Your task to perform on an android device: toggle translation in the chrome app Image 0: 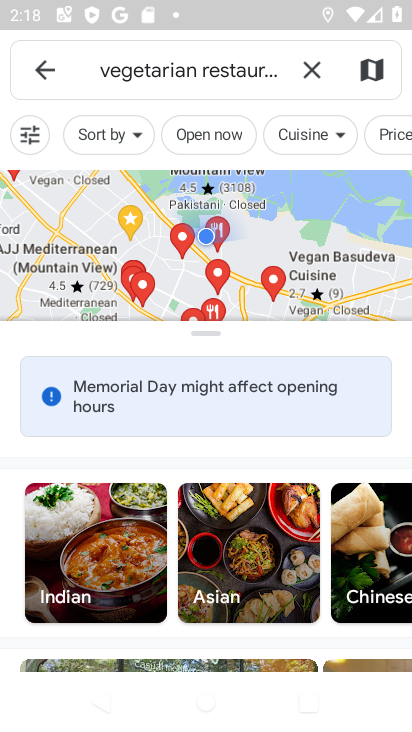
Step 0: press home button
Your task to perform on an android device: toggle translation in the chrome app Image 1: 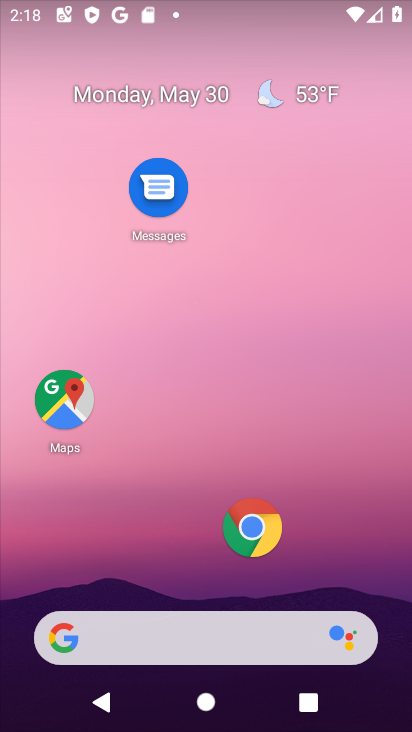
Step 1: drag from (144, 524) to (312, 73)
Your task to perform on an android device: toggle translation in the chrome app Image 2: 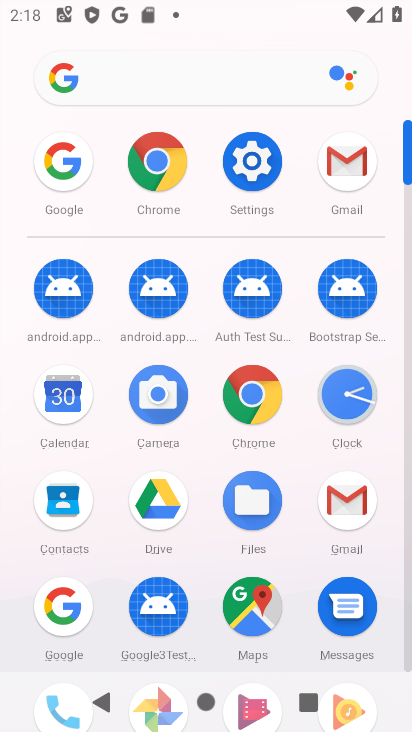
Step 2: click (256, 423)
Your task to perform on an android device: toggle translation in the chrome app Image 3: 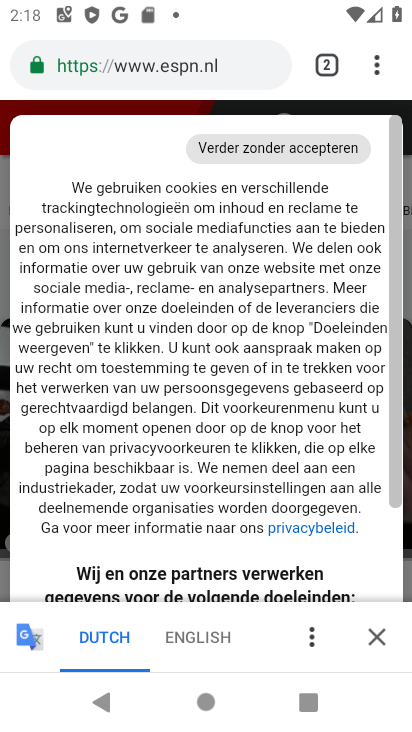
Step 3: click (375, 73)
Your task to perform on an android device: toggle translation in the chrome app Image 4: 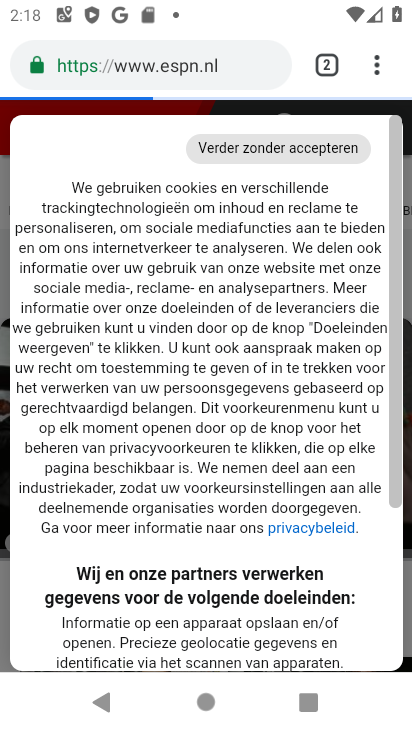
Step 4: click (374, 75)
Your task to perform on an android device: toggle translation in the chrome app Image 5: 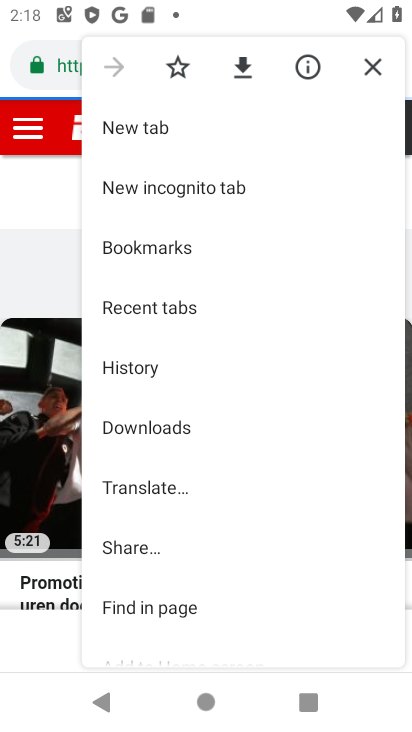
Step 5: drag from (170, 512) to (213, 223)
Your task to perform on an android device: toggle translation in the chrome app Image 6: 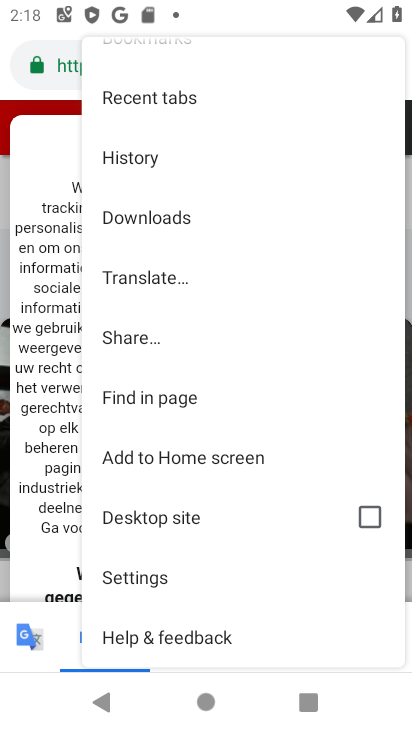
Step 6: click (175, 576)
Your task to perform on an android device: toggle translation in the chrome app Image 7: 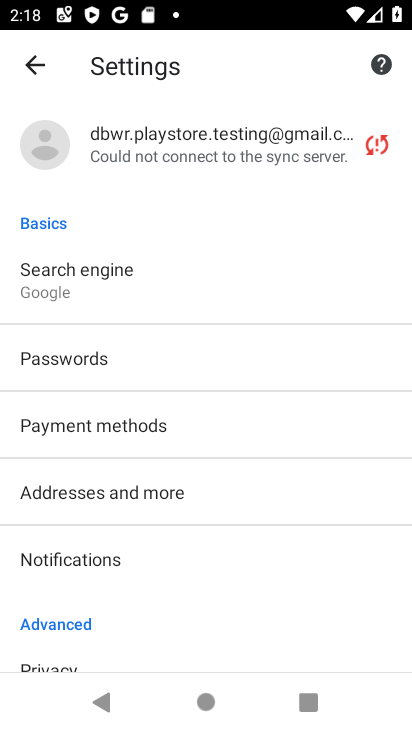
Step 7: drag from (103, 610) to (196, 274)
Your task to perform on an android device: toggle translation in the chrome app Image 8: 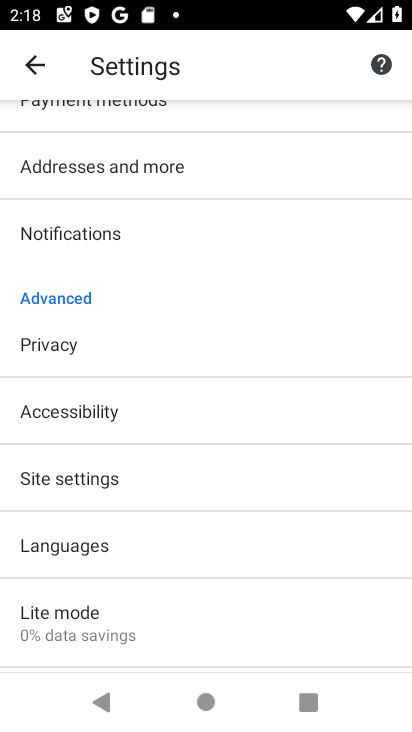
Step 8: click (132, 550)
Your task to perform on an android device: toggle translation in the chrome app Image 9: 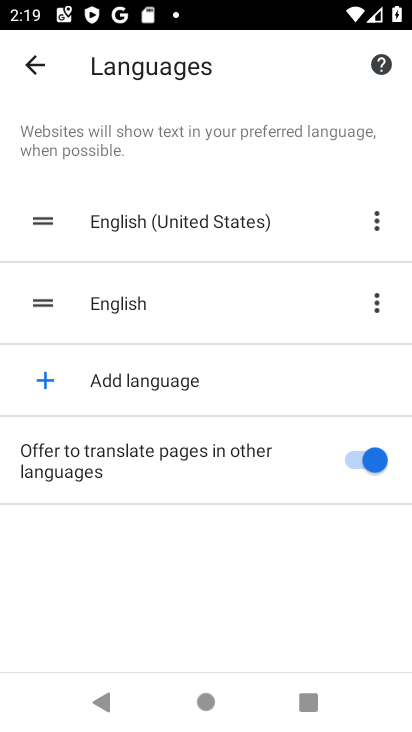
Step 9: click (356, 468)
Your task to perform on an android device: toggle translation in the chrome app Image 10: 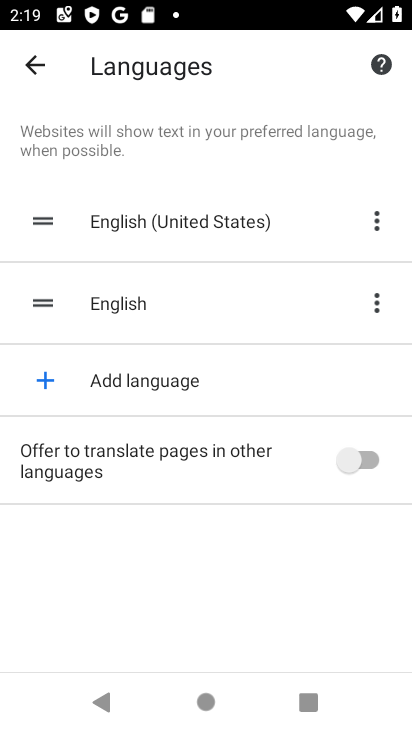
Step 10: task complete